Your task to perform on an android device: Open Chrome and go to the settings page Image 0: 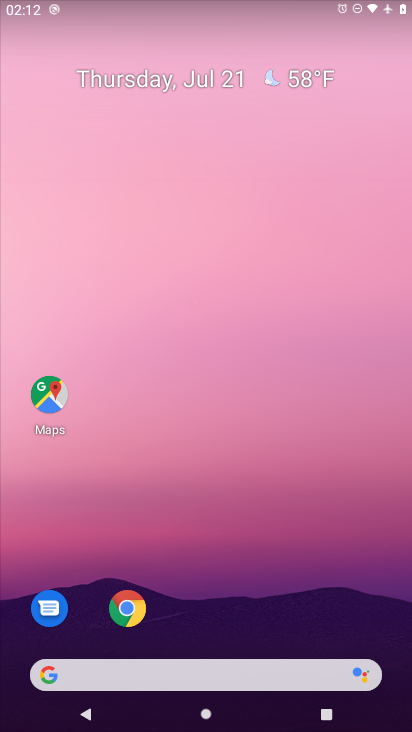
Step 0: press home button
Your task to perform on an android device: Open Chrome and go to the settings page Image 1: 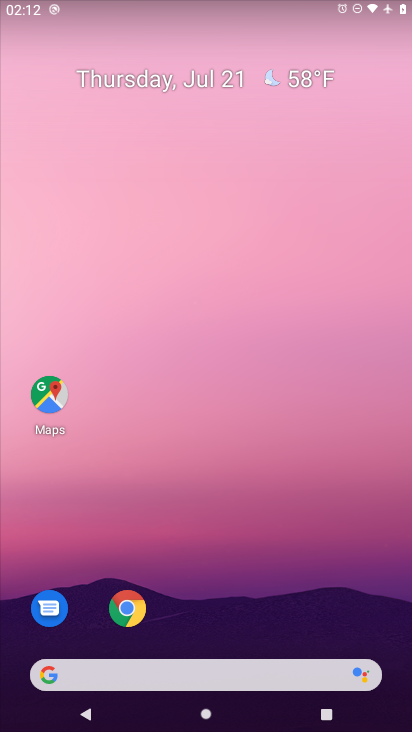
Step 1: drag from (223, 631) to (353, 54)
Your task to perform on an android device: Open Chrome and go to the settings page Image 2: 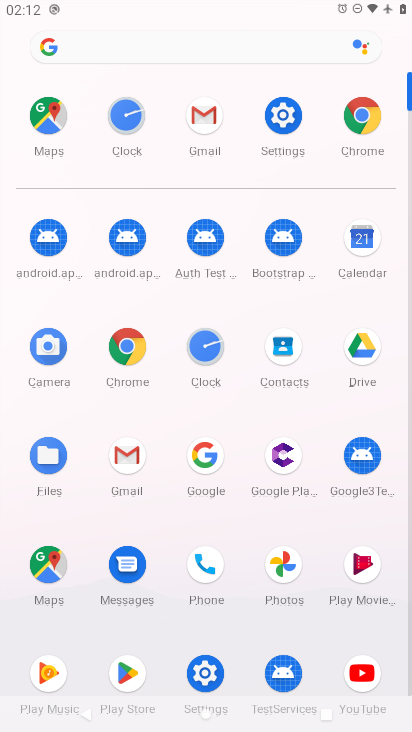
Step 2: click (365, 118)
Your task to perform on an android device: Open Chrome and go to the settings page Image 3: 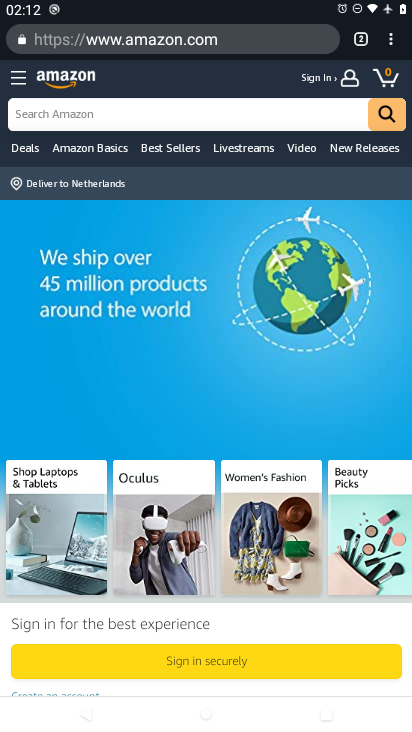
Step 3: task complete